Your task to perform on an android device: turn on translation in the chrome app Image 0: 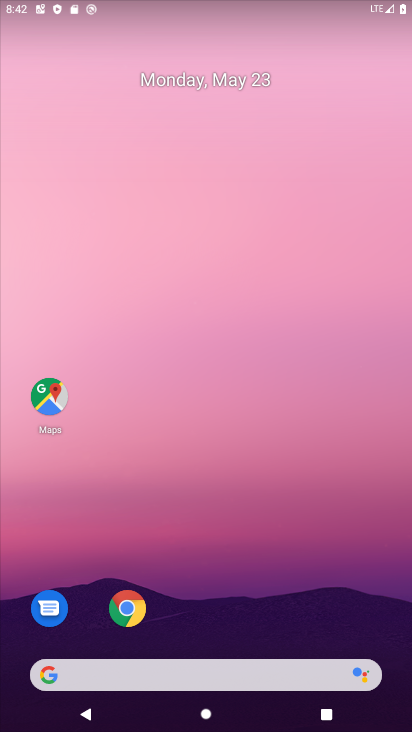
Step 0: click (129, 618)
Your task to perform on an android device: turn on translation in the chrome app Image 1: 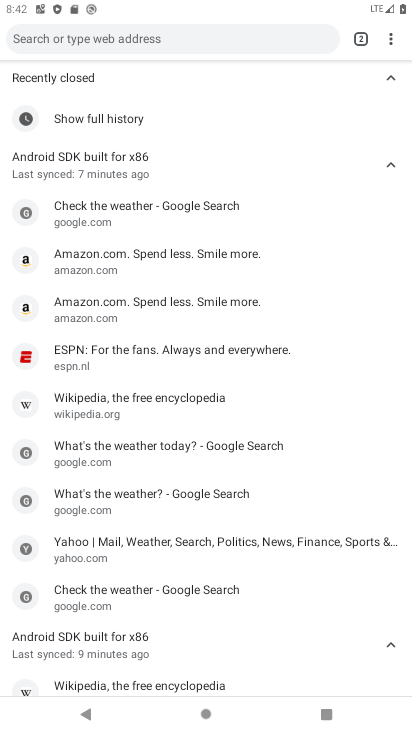
Step 1: drag from (392, 38) to (271, 331)
Your task to perform on an android device: turn on translation in the chrome app Image 2: 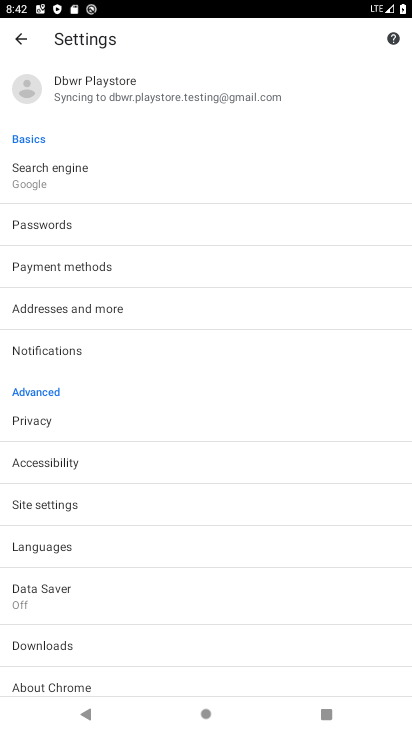
Step 2: click (102, 546)
Your task to perform on an android device: turn on translation in the chrome app Image 3: 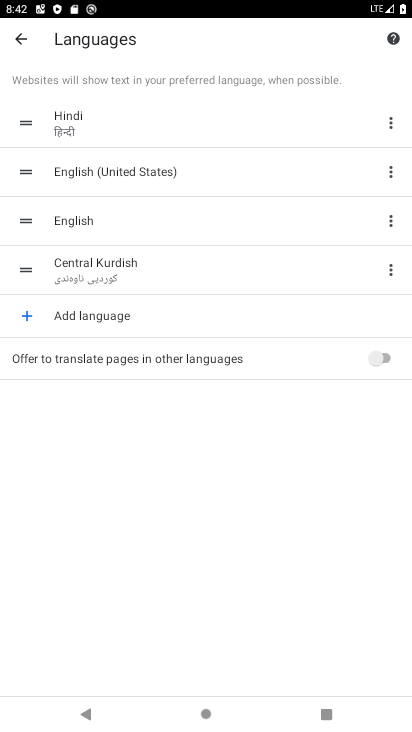
Step 3: click (371, 358)
Your task to perform on an android device: turn on translation in the chrome app Image 4: 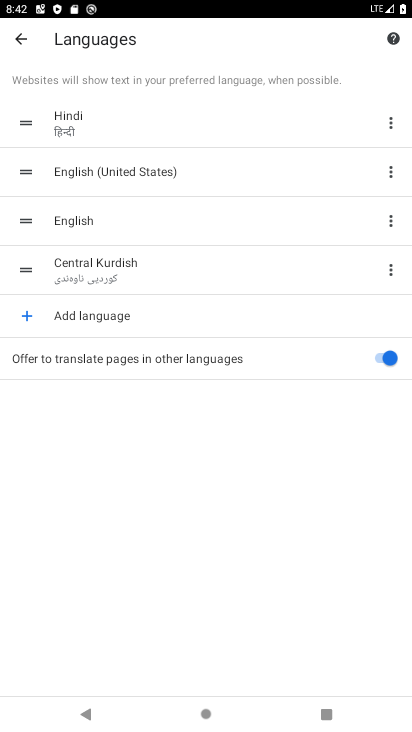
Step 4: task complete